Your task to perform on an android device: turn vacation reply on in the gmail app Image 0: 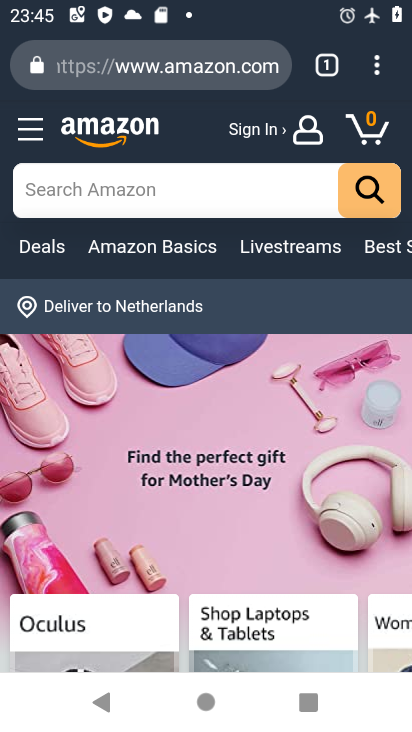
Step 0: press home button
Your task to perform on an android device: turn vacation reply on in the gmail app Image 1: 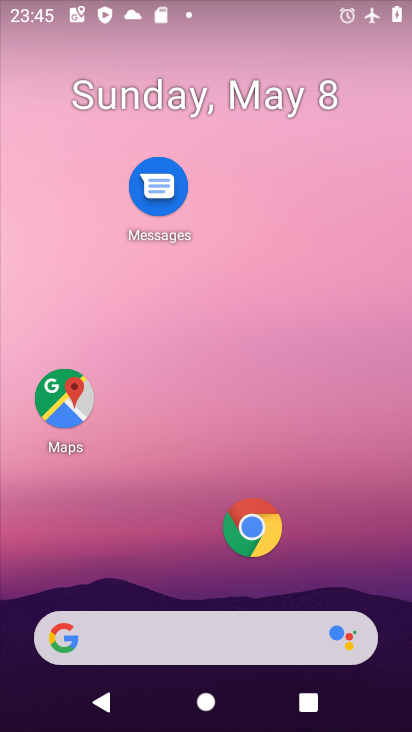
Step 1: drag from (165, 540) to (270, 66)
Your task to perform on an android device: turn vacation reply on in the gmail app Image 2: 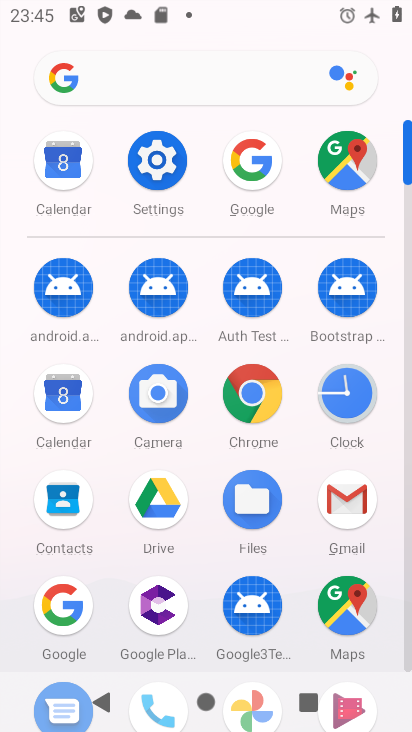
Step 2: click (348, 507)
Your task to perform on an android device: turn vacation reply on in the gmail app Image 3: 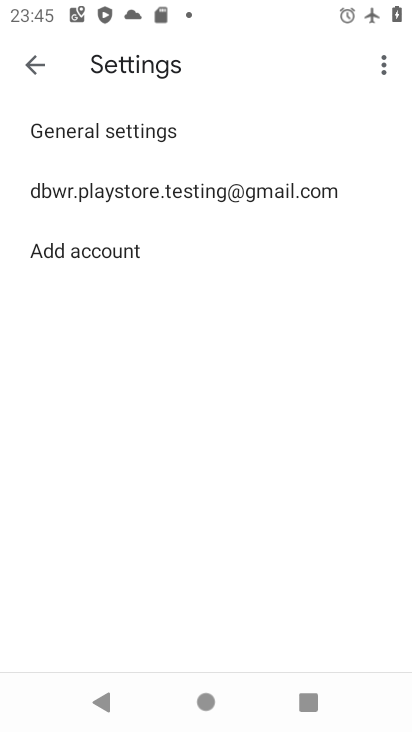
Step 3: click (131, 191)
Your task to perform on an android device: turn vacation reply on in the gmail app Image 4: 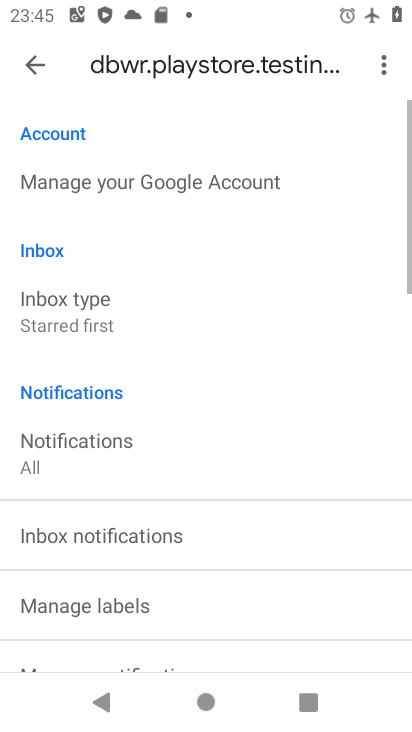
Step 4: drag from (181, 560) to (222, 121)
Your task to perform on an android device: turn vacation reply on in the gmail app Image 5: 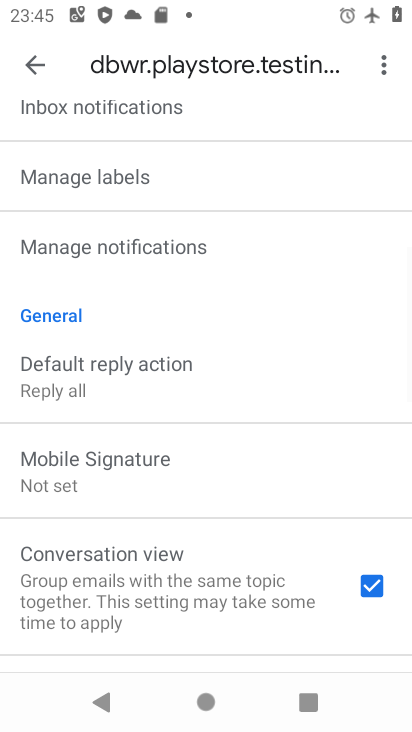
Step 5: drag from (188, 557) to (226, 172)
Your task to perform on an android device: turn vacation reply on in the gmail app Image 6: 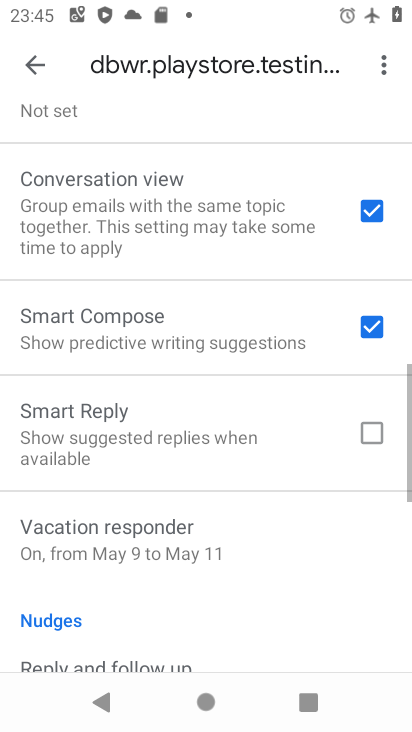
Step 6: drag from (152, 231) to (203, 504)
Your task to perform on an android device: turn vacation reply on in the gmail app Image 7: 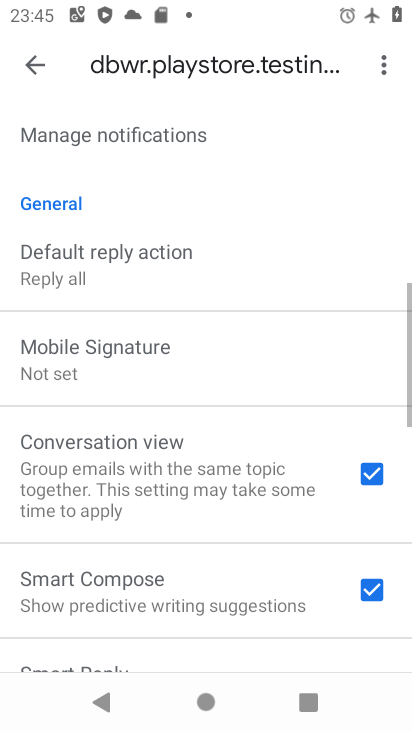
Step 7: drag from (139, 237) to (145, 489)
Your task to perform on an android device: turn vacation reply on in the gmail app Image 8: 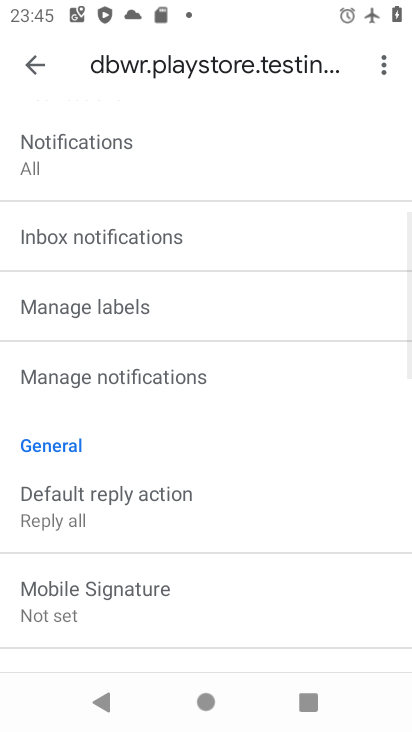
Step 8: drag from (115, 196) to (197, 16)
Your task to perform on an android device: turn vacation reply on in the gmail app Image 9: 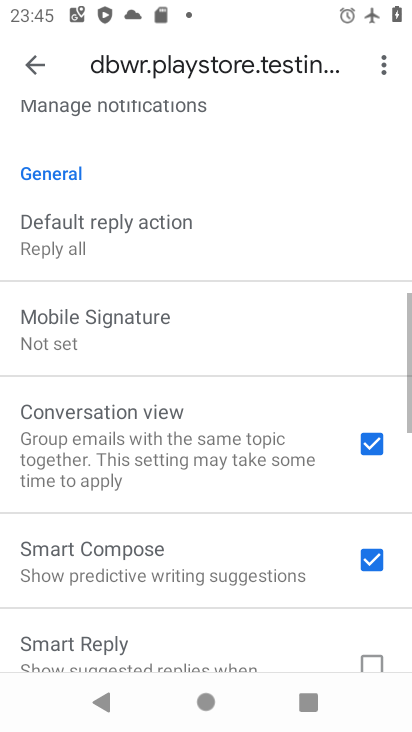
Step 9: drag from (145, 570) to (163, 92)
Your task to perform on an android device: turn vacation reply on in the gmail app Image 10: 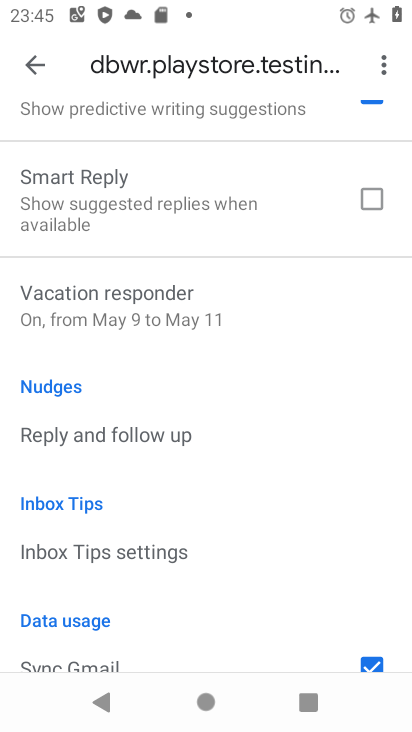
Step 10: click (146, 282)
Your task to perform on an android device: turn vacation reply on in the gmail app Image 11: 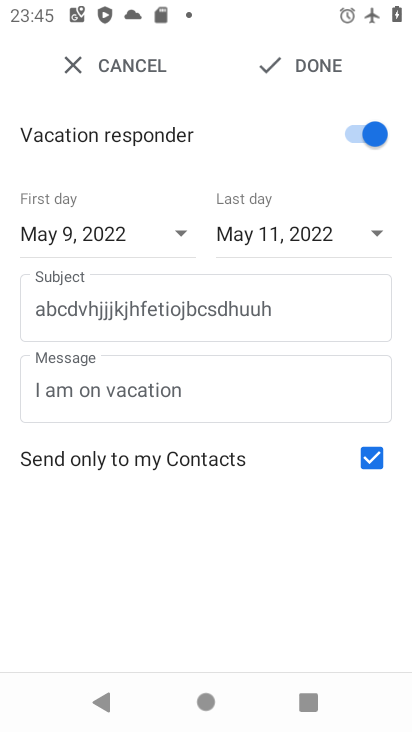
Step 11: task complete